Your task to perform on an android device: Open my contact list Image 0: 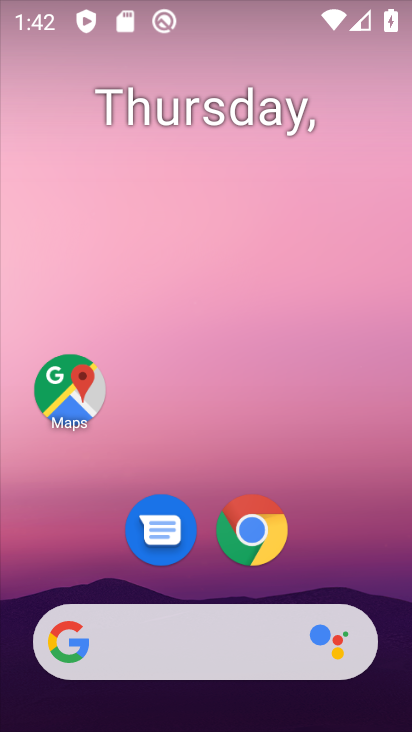
Step 0: drag from (278, 710) to (173, 37)
Your task to perform on an android device: Open my contact list Image 1: 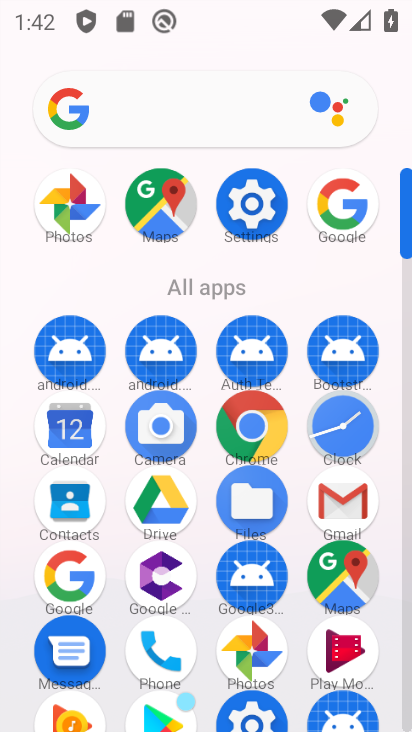
Step 1: click (77, 502)
Your task to perform on an android device: Open my contact list Image 2: 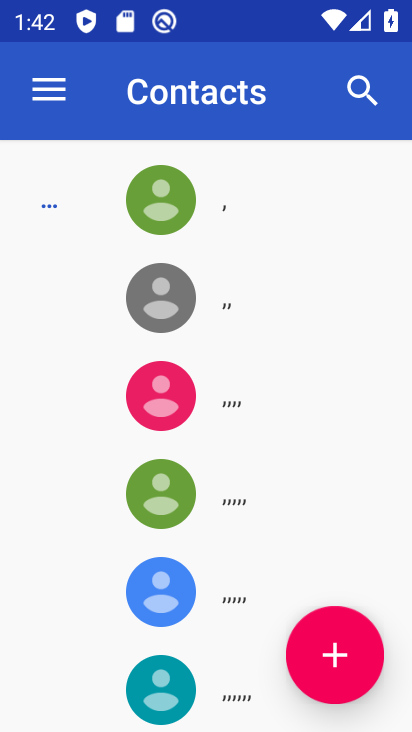
Step 2: task complete